Your task to perform on an android device: change your default location settings in chrome Image 0: 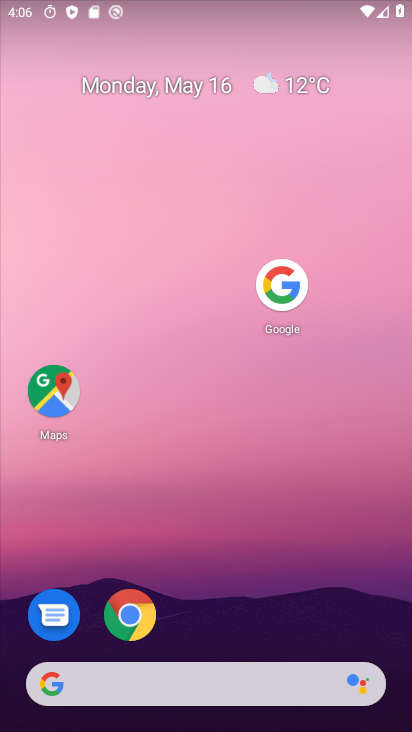
Step 0: click (150, 602)
Your task to perform on an android device: change your default location settings in chrome Image 1: 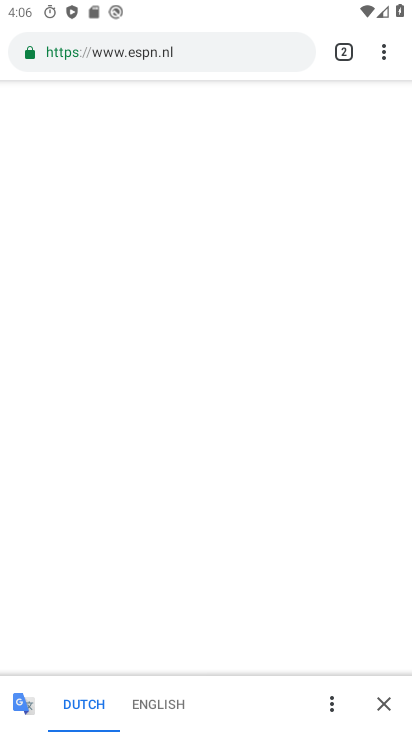
Step 1: click (375, 58)
Your task to perform on an android device: change your default location settings in chrome Image 2: 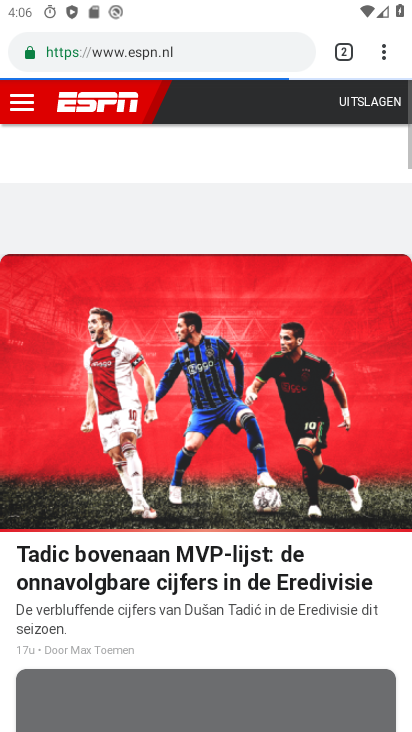
Step 2: click (388, 61)
Your task to perform on an android device: change your default location settings in chrome Image 3: 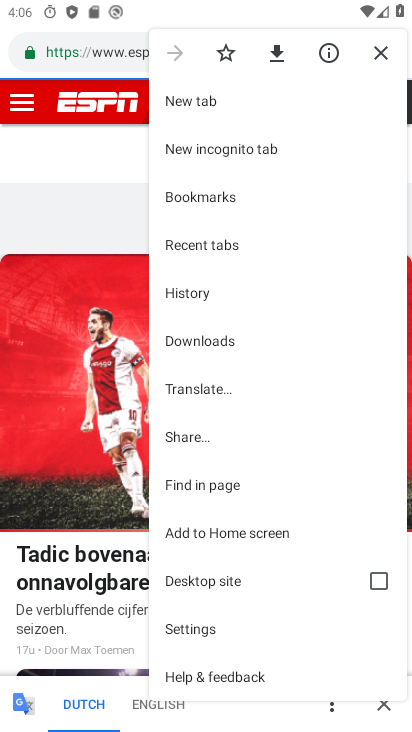
Step 3: click (202, 628)
Your task to perform on an android device: change your default location settings in chrome Image 4: 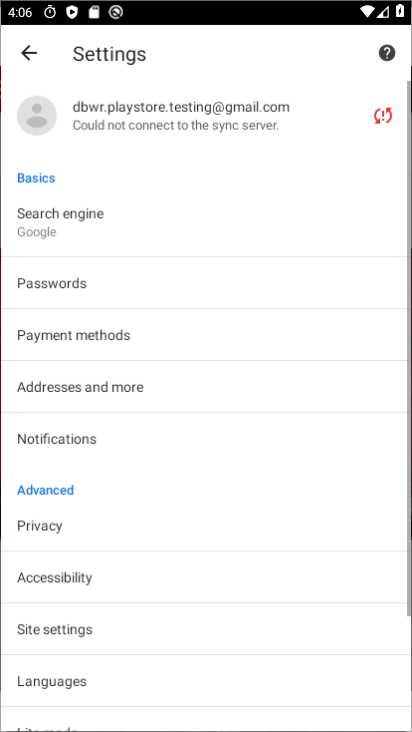
Step 4: drag from (202, 628) to (157, 334)
Your task to perform on an android device: change your default location settings in chrome Image 5: 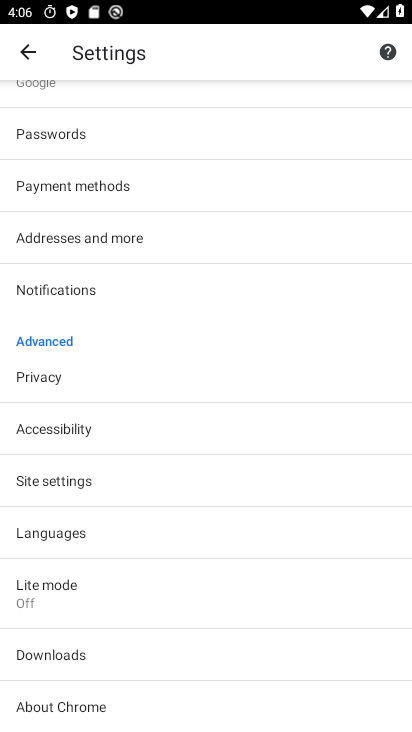
Step 5: click (65, 474)
Your task to perform on an android device: change your default location settings in chrome Image 6: 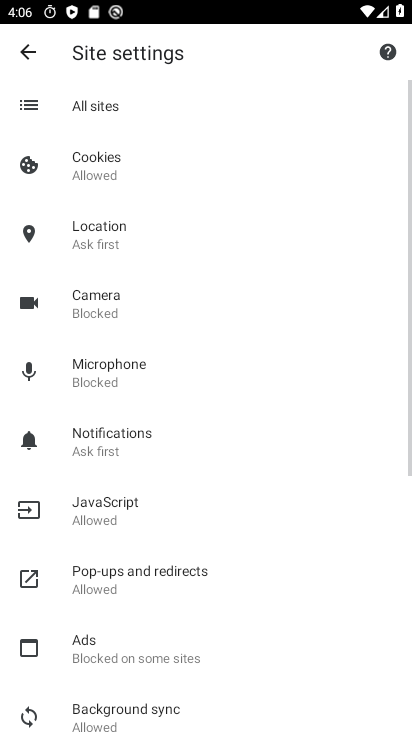
Step 6: click (97, 239)
Your task to perform on an android device: change your default location settings in chrome Image 7: 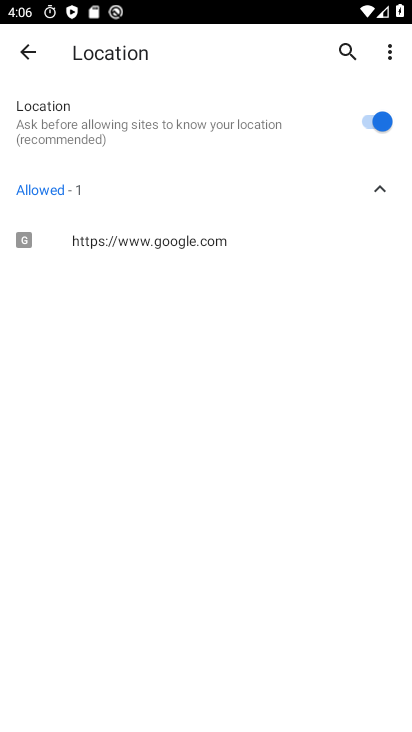
Step 7: click (369, 118)
Your task to perform on an android device: change your default location settings in chrome Image 8: 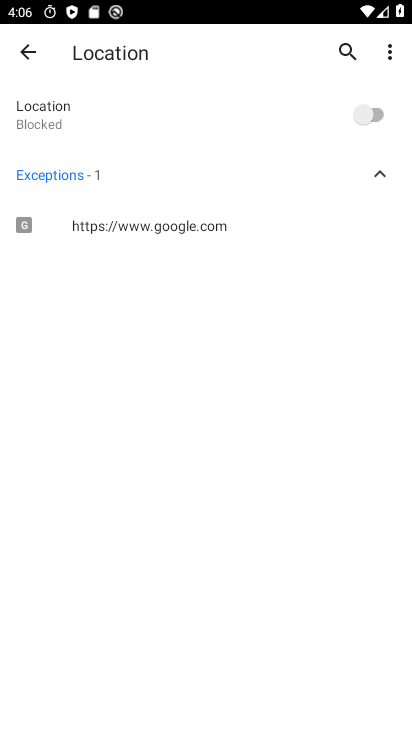
Step 8: task complete